Your task to perform on an android device: Play the last video I watched on Youtube Image 0: 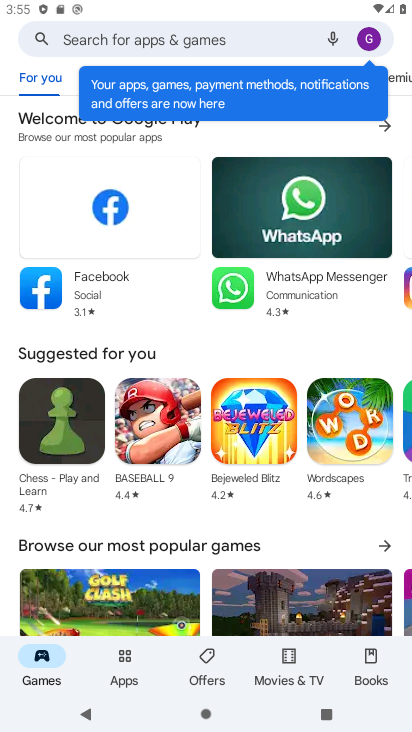
Step 0: press home button
Your task to perform on an android device: Play the last video I watched on Youtube Image 1: 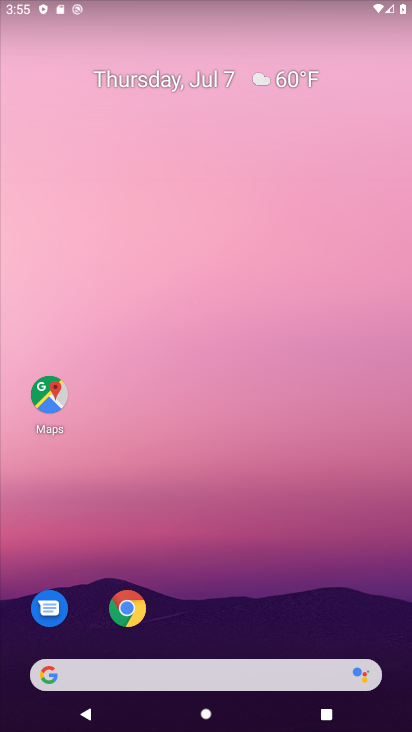
Step 1: drag from (210, 575) to (198, 181)
Your task to perform on an android device: Play the last video I watched on Youtube Image 2: 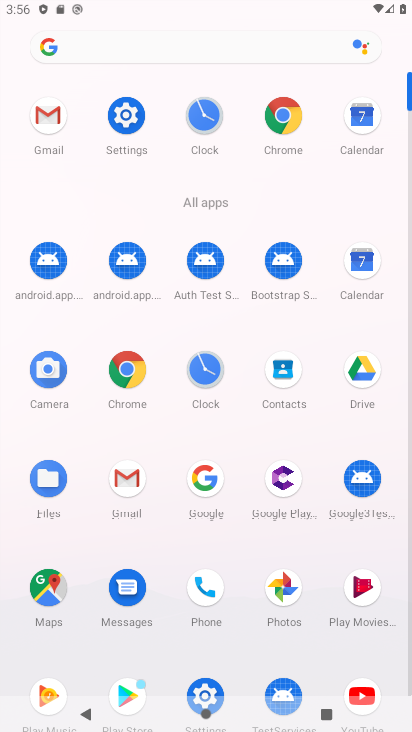
Step 2: drag from (167, 535) to (171, 220)
Your task to perform on an android device: Play the last video I watched on Youtube Image 3: 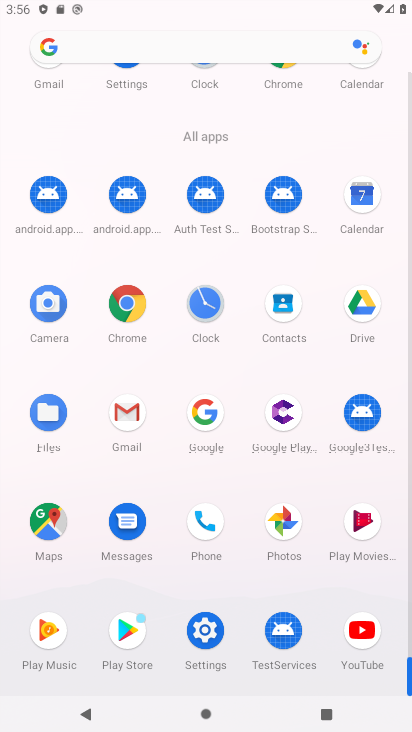
Step 3: click (369, 628)
Your task to perform on an android device: Play the last video I watched on Youtube Image 4: 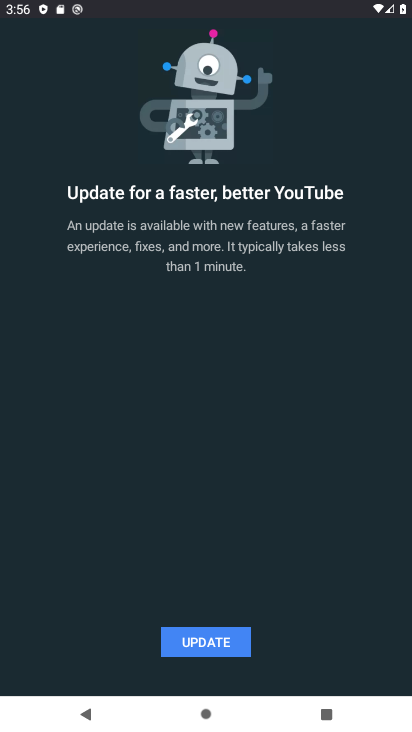
Step 4: click (207, 638)
Your task to perform on an android device: Play the last video I watched on Youtube Image 5: 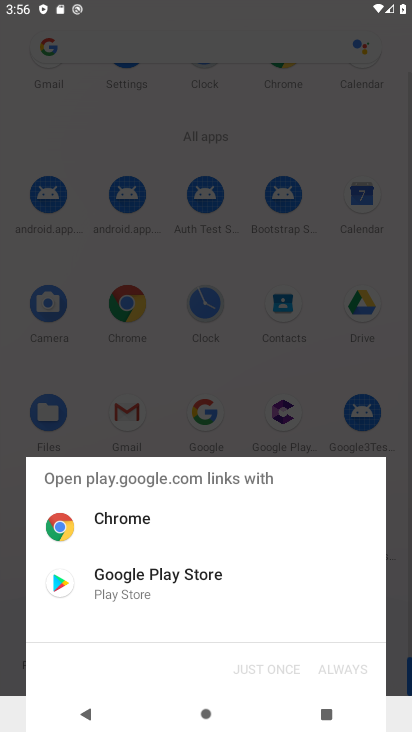
Step 5: click (189, 577)
Your task to perform on an android device: Play the last video I watched on Youtube Image 6: 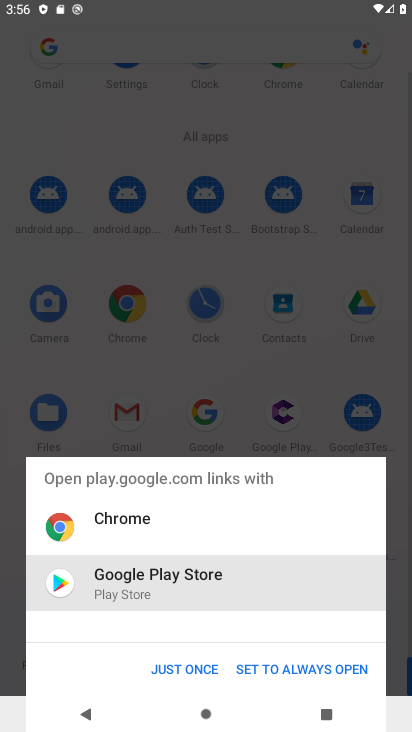
Step 6: click (194, 659)
Your task to perform on an android device: Play the last video I watched on Youtube Image 7: 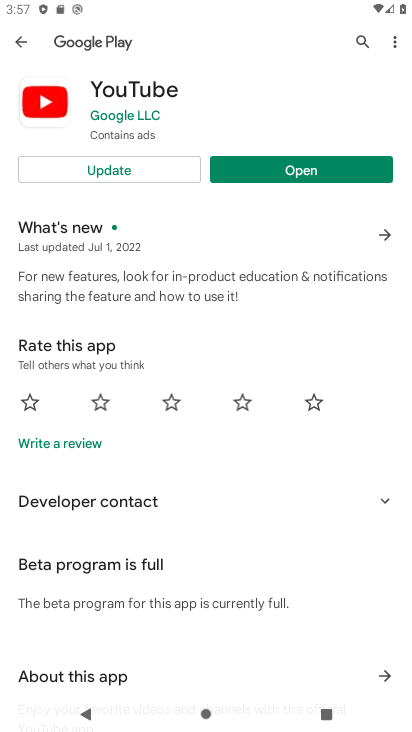
Step 7: click (151, 163)
Your task to perform on an android device: Play the last video I watched on Youtube Image 8: 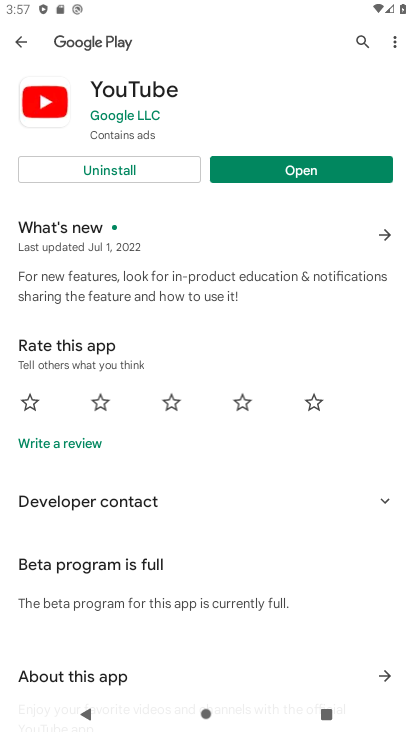
Step 8: click (260, 170)
Your task to perform on an android device: Play the last video I watched on Youtube Image 9: 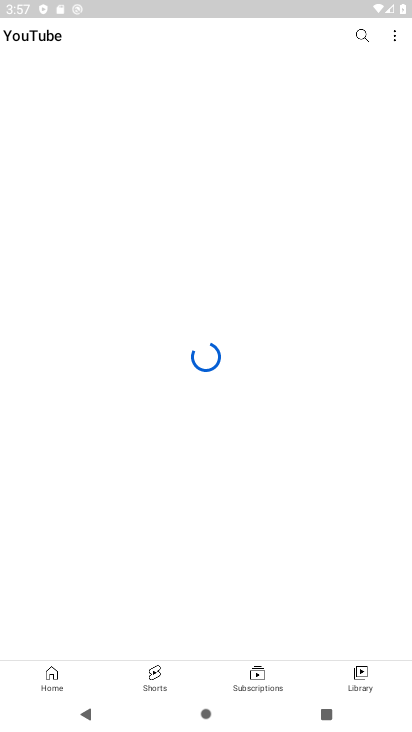
Step 9: click (354, 668)
Your task to perform on an android device: Play the last video I watched on Youtube Image 10: 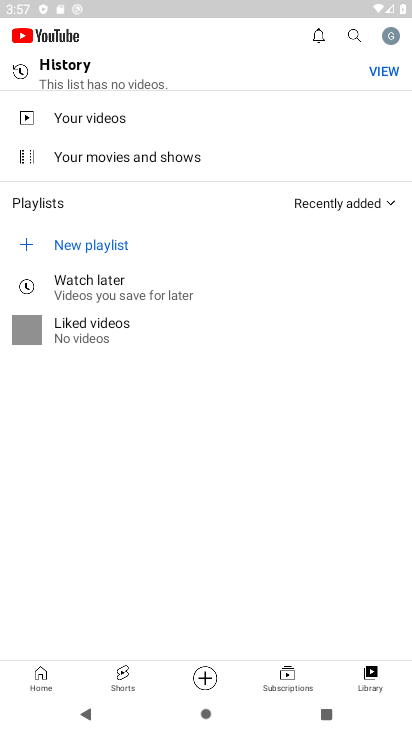
Step 10: click (379, 73)
Your task to perform on an android device: Play the last video I watched on Youtube Image 11: 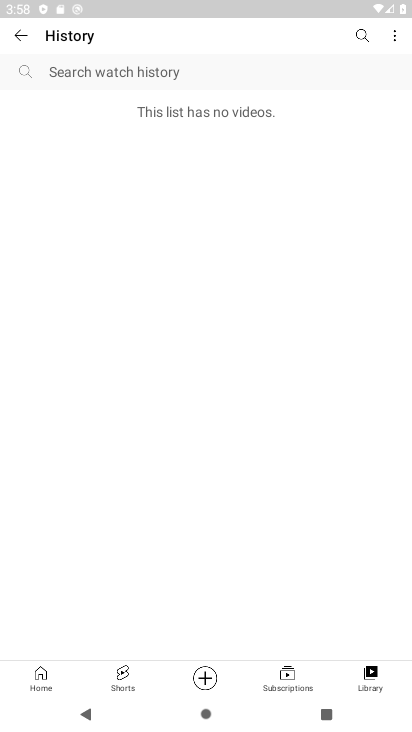
Step 11: task complete